Your task to perform on an android device: Search for seafood restaurants on Google Maps Image 0: 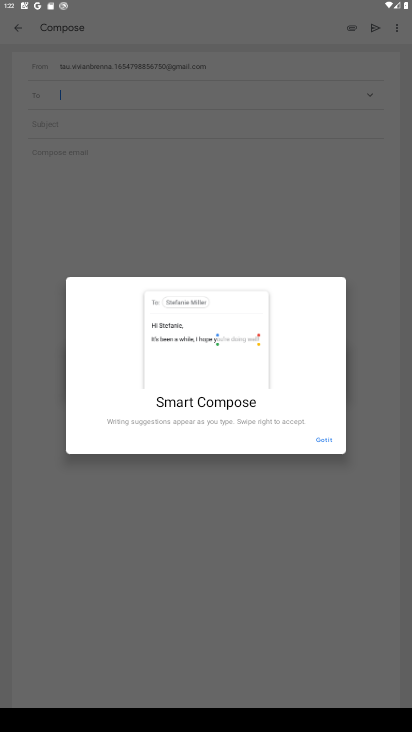
Step 0: press home button
Your task to perform on an android device: Search for seafood restaurants on Google Maps Image 1: 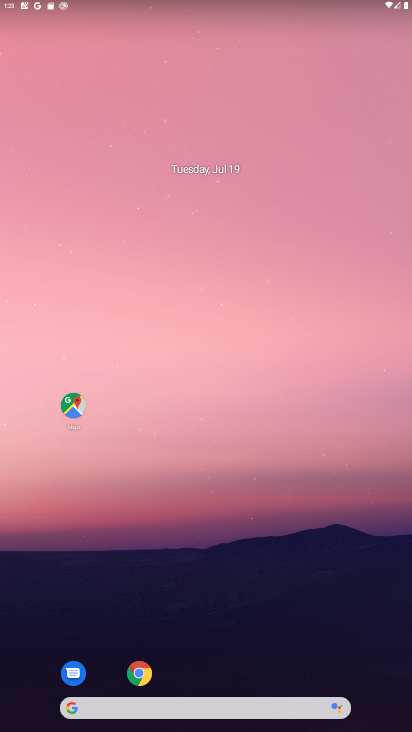
Step 1: click (67, 408)
Your task to perform on an android device: Search for seafood restaurants on Google Maps Image 2: 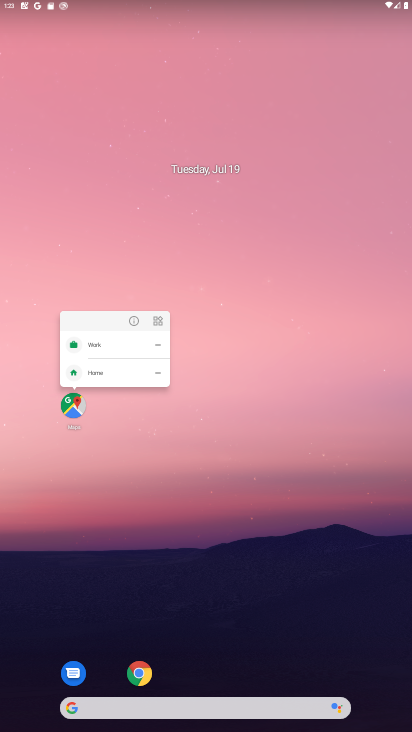
Step 2: click (67, 408)
Your task to perform on an android device: Search for seafood restaurants on Google Maps Image 3: 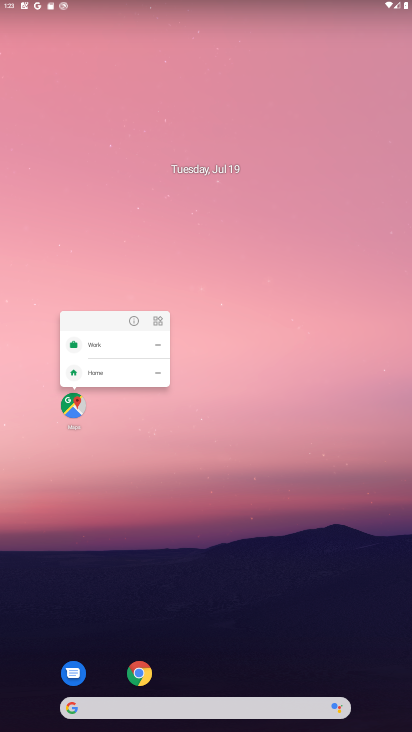
Step 3: click (67, 408)
Your task to perform on an android device: Search for seafood restaurants on Google Maps Image 4: 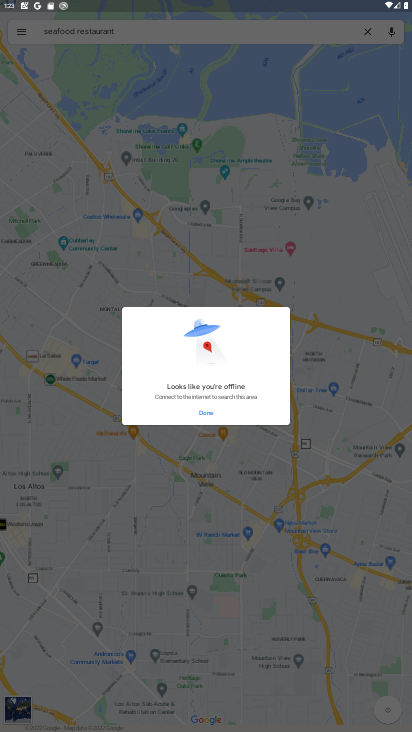
Step 4: click (216, 418)
Your task to perform on an android device: Search for seafood restaurants on Google Maps Image 5: 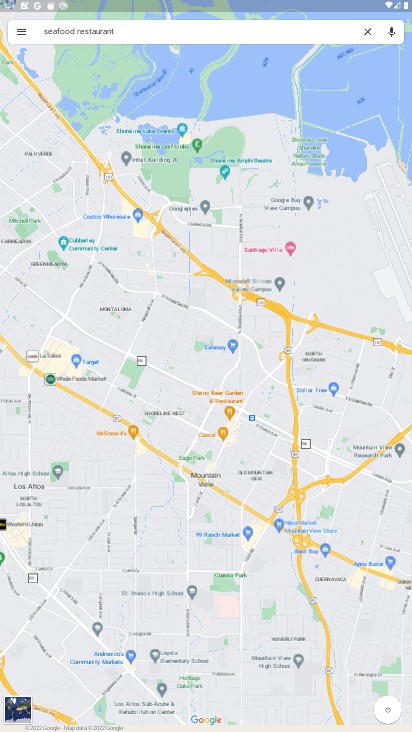
Step 5: task complete